Your task to perform on an android device: turn off wifi Image 0: 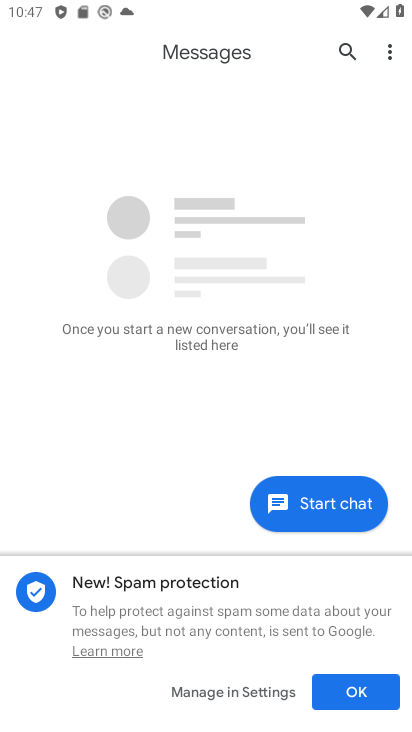
Step 0: press home button
Your task to perform on an android device: turn off wifi Image 1: 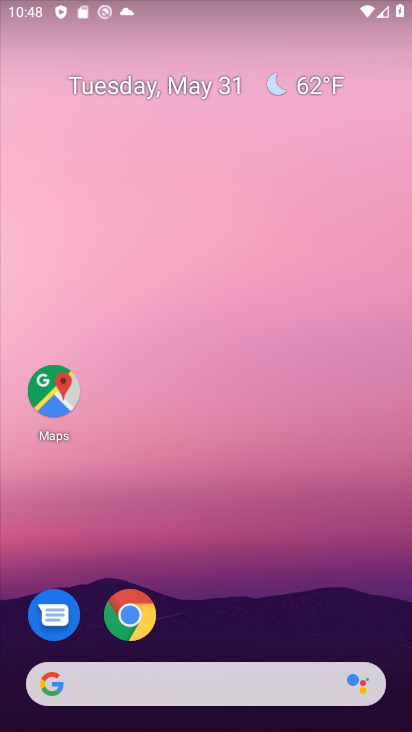
Step 1: drag from (187, 680) to (186, 156)
Your task to perform on an android device: turn off wifi Image 2: 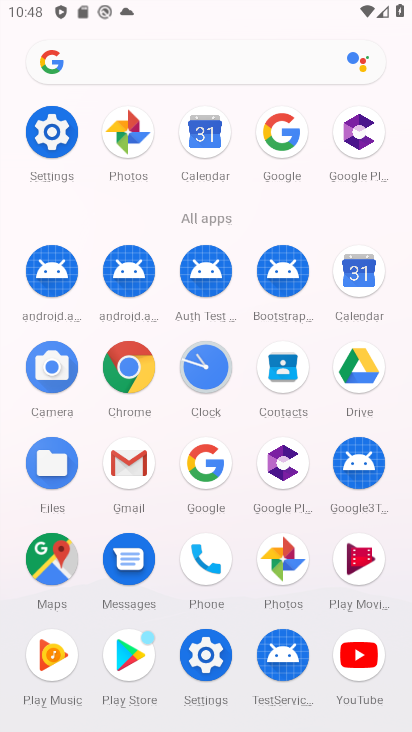
Step 2: drag from (317, 1) to (205, 438)
Your task to perform on an android device: turn off wifi Image 3: 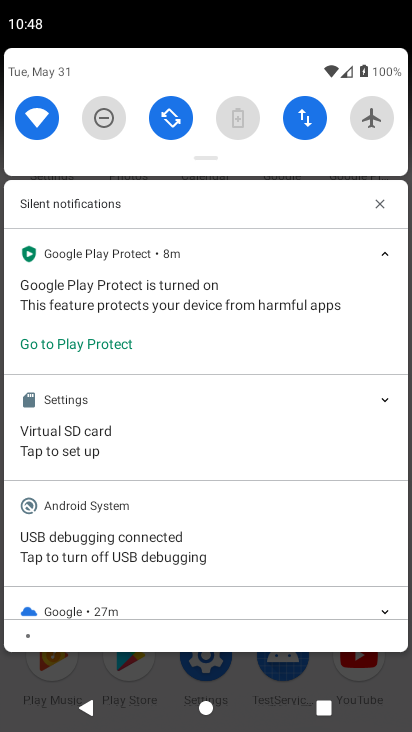
Step 3: click (31, 106)
Your task to perform on an android device: turn off wifi Image 4: 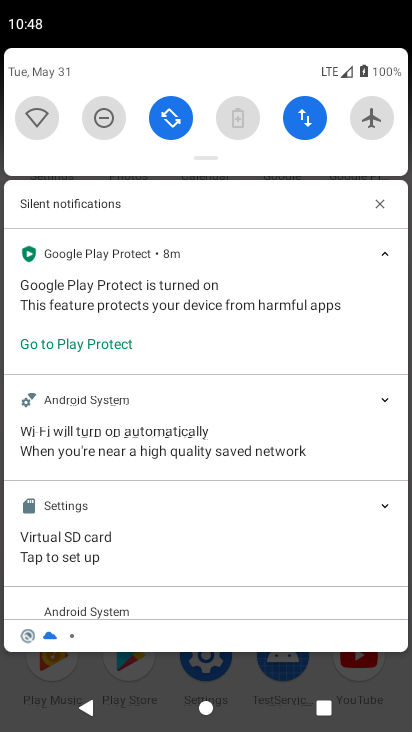
Step 4: task complete